Your task to perform on an android device: check storage Image 0: 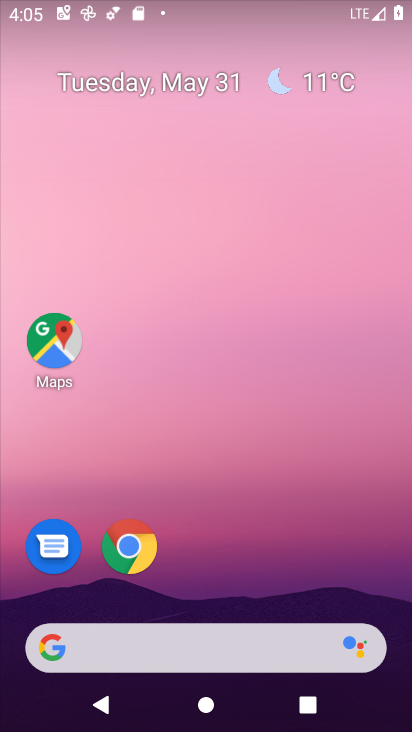
Step 0: drag from (284, 537) to (199, 39)
Your task to perform on an android device: check storage Image 1: 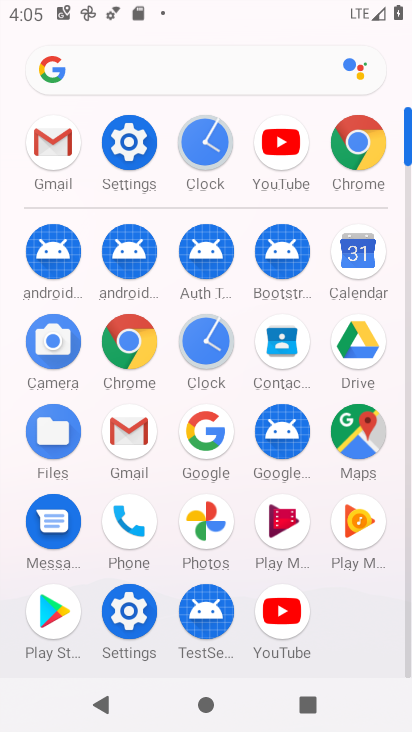
Step 1: click (140, 172)
Your task to perform on an android device: check storage Image 2: 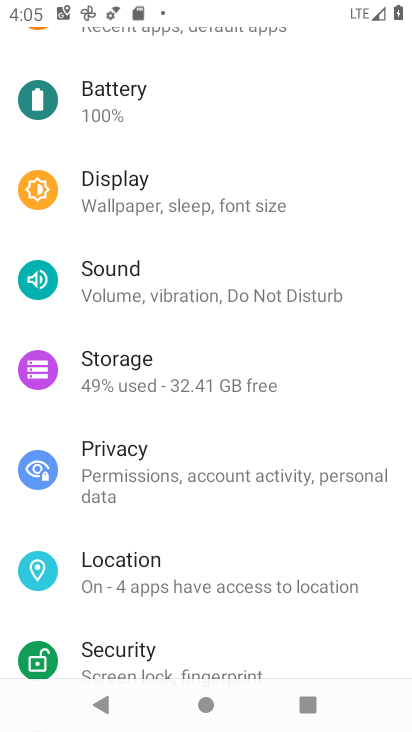
Step 2: click (187, 368)
Your task to perform on an android device: check storage Image 3: 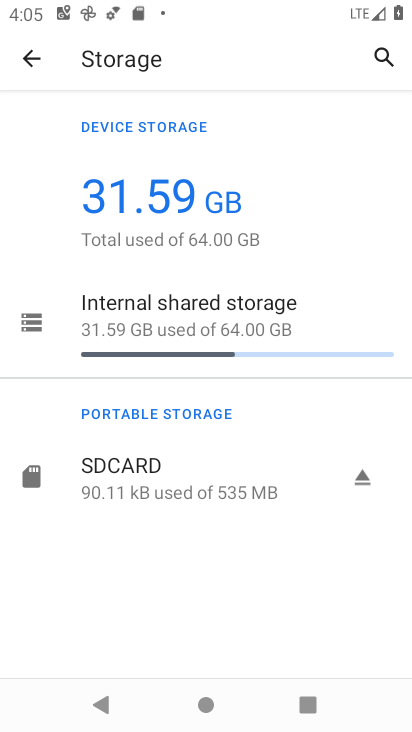
Step 3: task complete